Your task to perform on an android device: open chrome and create a bookmark for the current page Image 0: 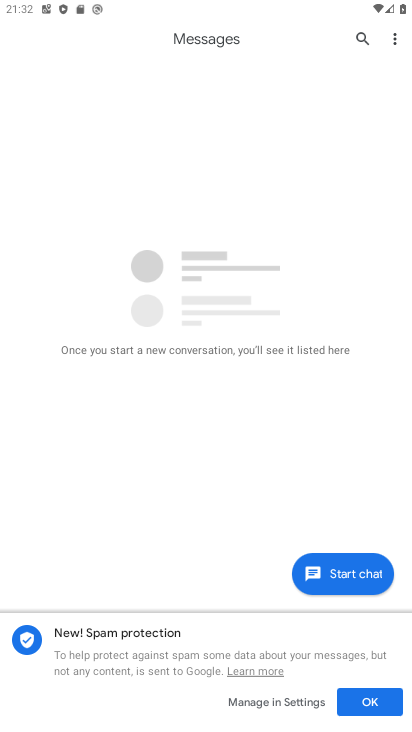
Step 0: press home button
Your task to perform on an android device: open chrome and create a bookmark for the current page Image 1: 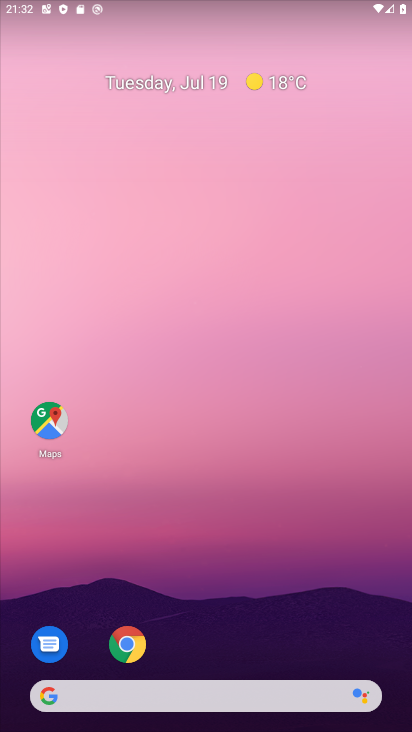
Step 1: click (127, 643)
Your task to perform on an android device: open chrome and create a bookmark for the current page Image 2: 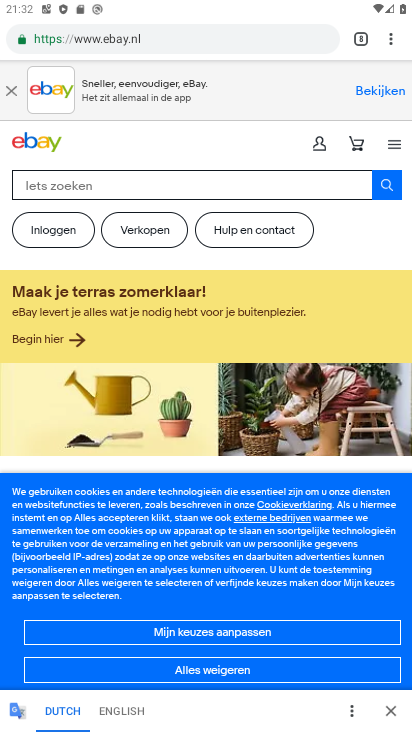
Step 2: click (390, 41)
Your task to perform on an android device: open chrome and create a bookmark for the current page Image 3: 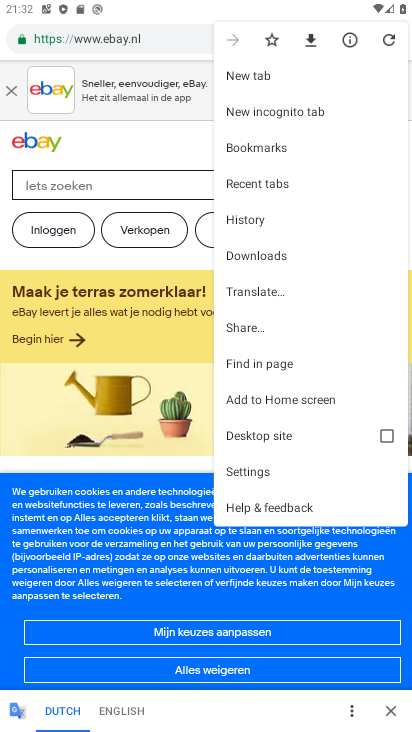
Step 3: click (274, 41)
Your task to perform on an android device: open chrome and create a bookmark for the current page Image 4: 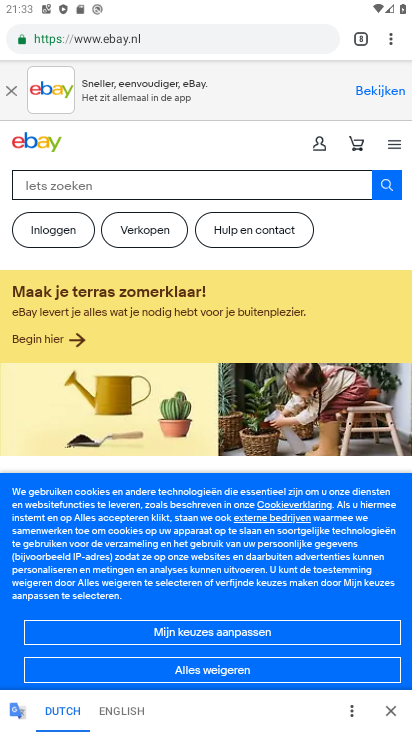
Step 4: task complete